Your task to perform on an android device: turn pop-ups on in chrome Image 0: 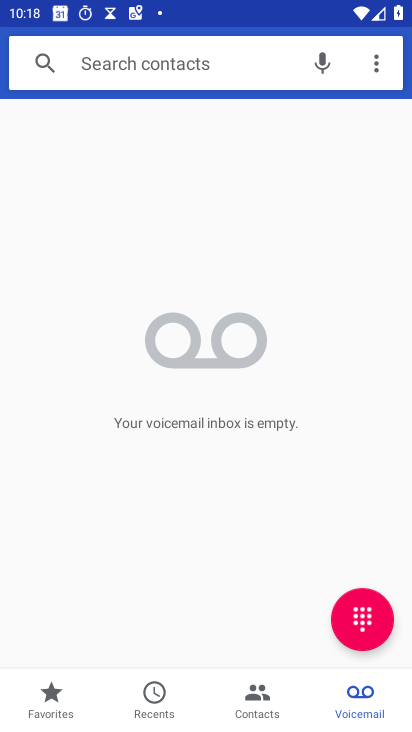
Step 0: press back button
Your task to perform on an android device: turn pop-ups on in chrome Image 1: 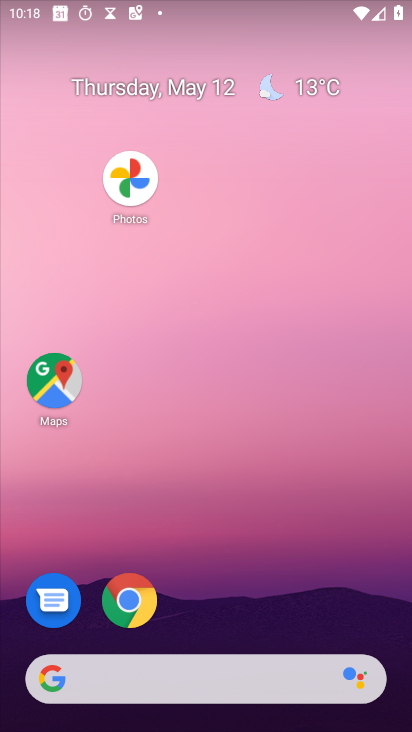
Step 1: drag from (320, 622) to (182, 43)
Your task to perform on an android device: turn pop-ups on in chrome Image 2: 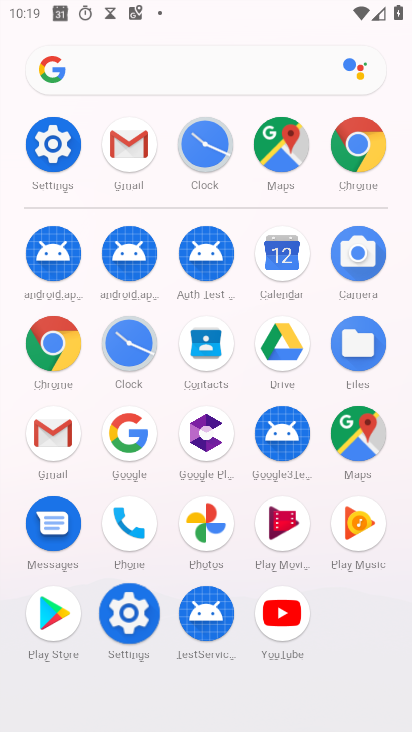
Step 2: click (362, 149)
Your task to perform on an android device: turn pop-ups on in chrome Image 3: 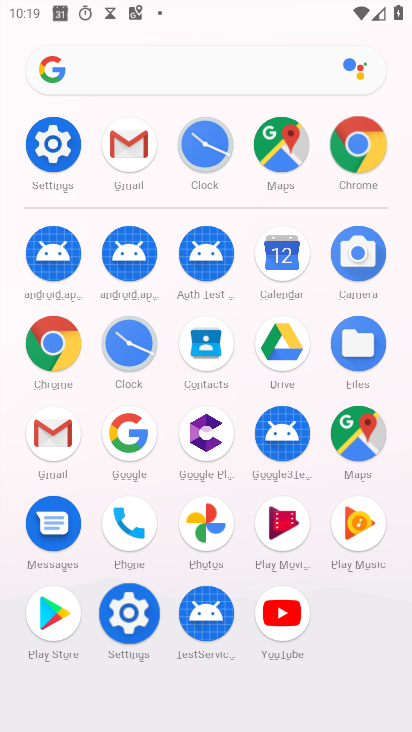
Step 3: click (362, 149)
Your task to perform on an android device: turn pop-ups on in chrome Image 4: 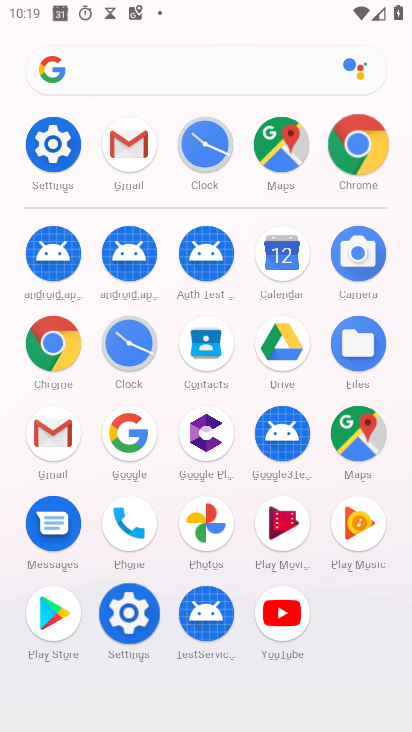
Step 4: click (356, 140)
Your task to perform on an android device: turn pop-ups on in chrome Image 5: 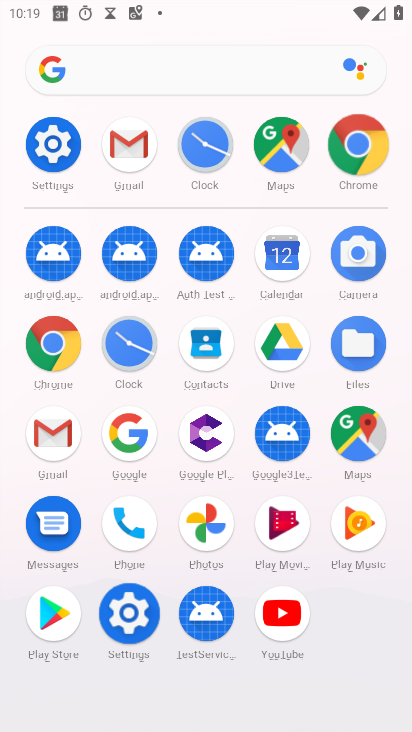
Step 5: click (356, 140)
Your task to perform on an android device: turn pop-ups on in chrome Image 6: 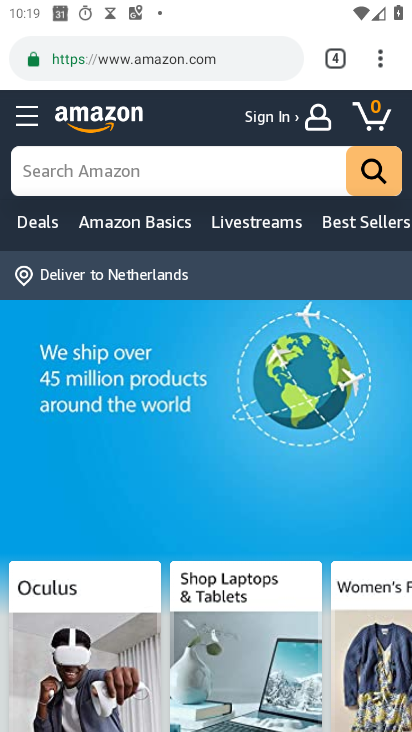
Step 6: click (380, 57)
Your task to perform on an android device: turn pop-ups on in chrome Image 7: 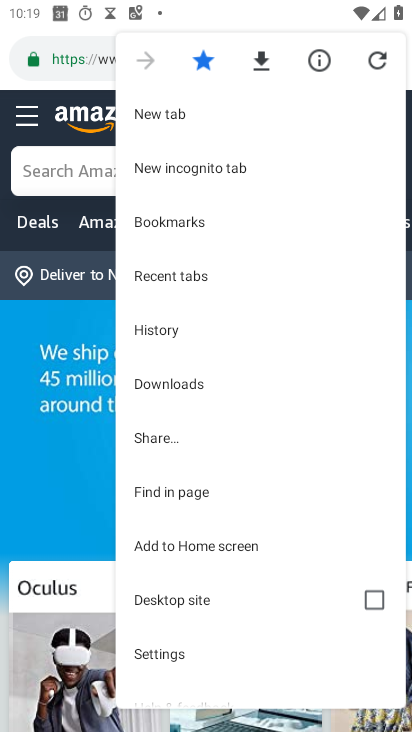
Step 7: click (166, 651)
Your task to perform on an android device: turn pop-ups on in chrome Image 8: 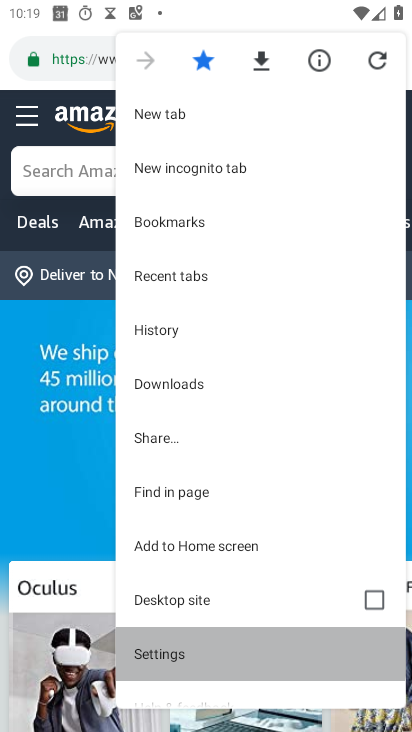
Step 8: click (161, 661)
Your task to perform on an android device: turn pop-ups on in chrome Image 9: 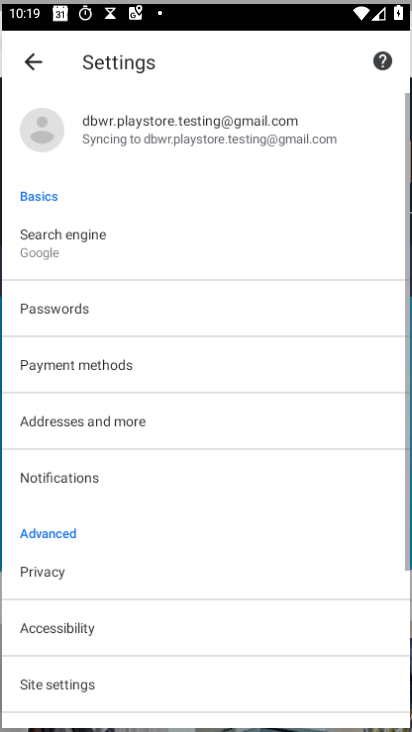
Step 9: drag from (307, 485) to (236, 80)
Your task to perform on an android device: turn pop-ups on in chrome Image 10: 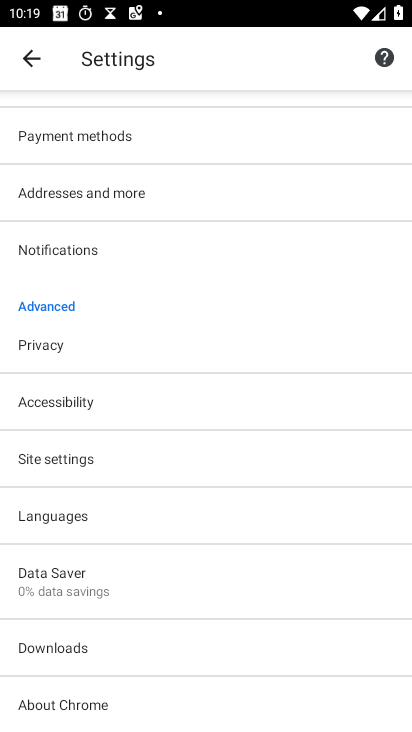
Step 10: drag from (118, 559) to (51, 84)
Your task to perform on an android device: turn pop-ups on in chrome Image 11: 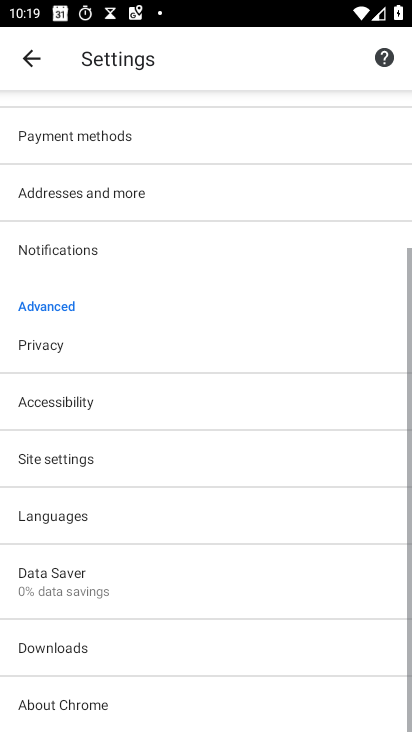
Step 11: click (55, 453)
Your task to perform on an android device: turn pop-ups on in chrome Image 12: 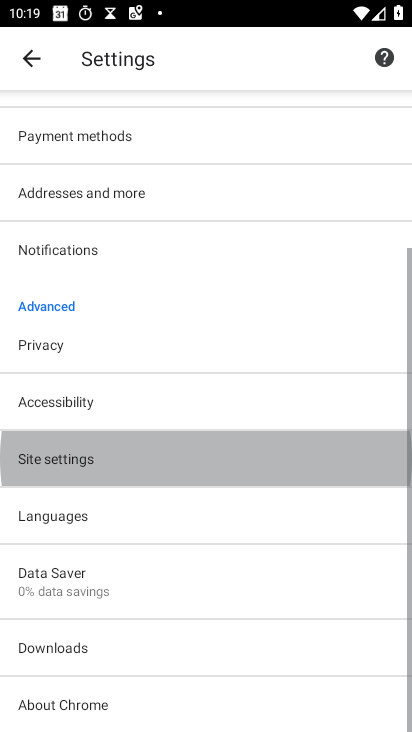
Step 12: click (56, 459)
Your task to perform on an android device: turn pop-ups on in chrome Image 13: 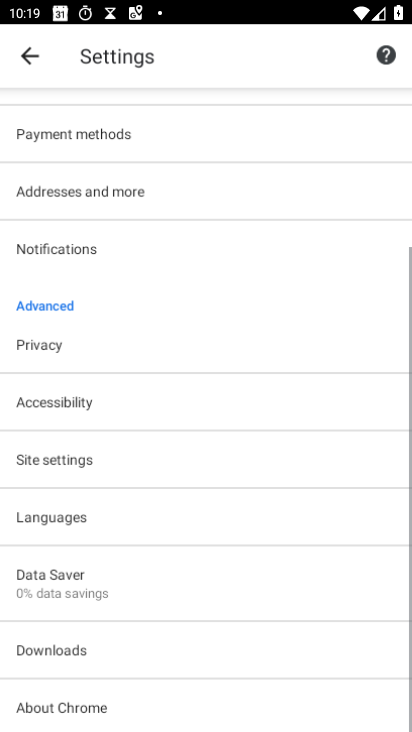
Step 13: click (56, 460)
Your task to perform on an android device: turn pop-ups on in chrome Image 14: 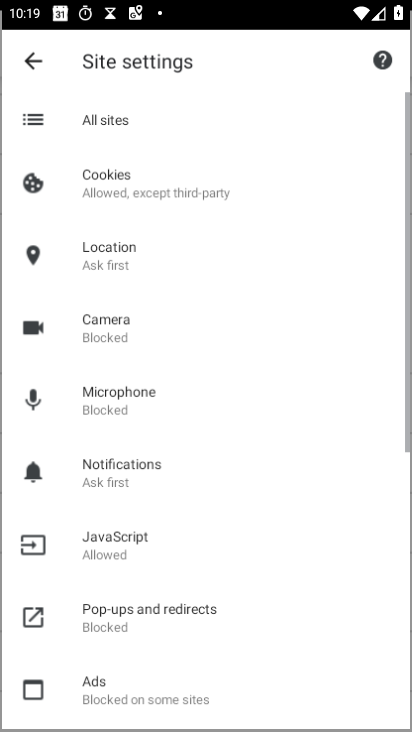
Step 14: click (55, 461)
Your task to perform on an android device: turn pop-ups on in chrome Image 15: 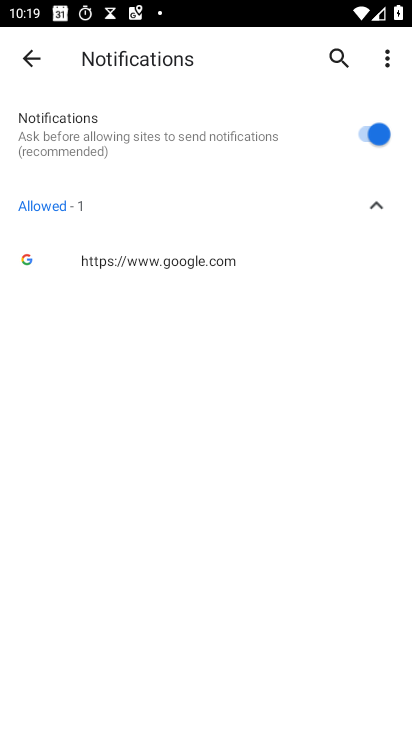
Step 15: click (29, 49)
Your task to perform on an android device: turn pop-ups on in chrome Image 16: 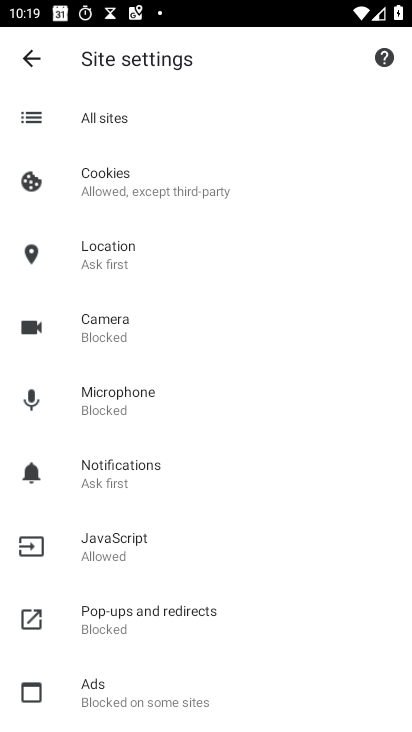
Step 16: click (121, 609)
Your task to perform on an android device: turn pop-ups on in chrome Image 17: 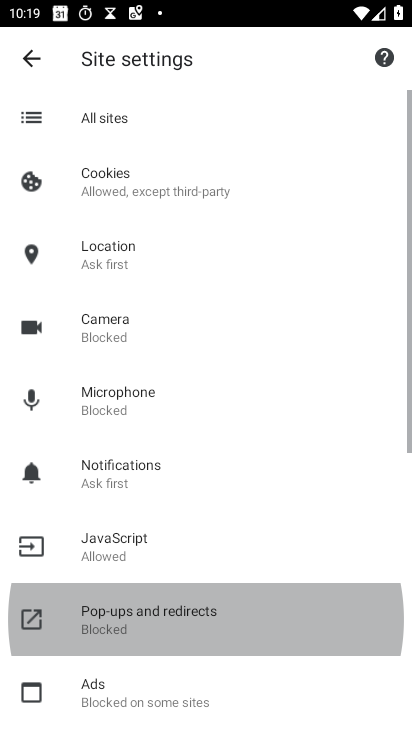
Step 17: click (118, 615)
Your task to perform on an android device: turn pop-ups on in chrome Image 18: 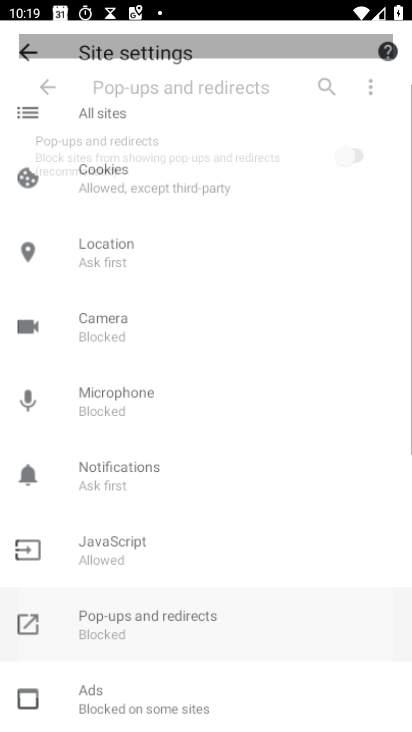
Step 18: click (121, 613)
Your task to perform on an android device: turn pop-ups on in chrome Image 19: 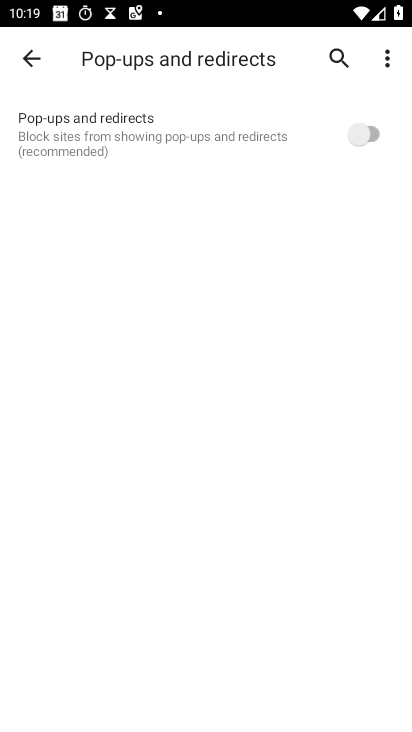
Step 19: click (125, 611)
Your task to perform on an android device: turn pop-ups on in chrome Image 20: 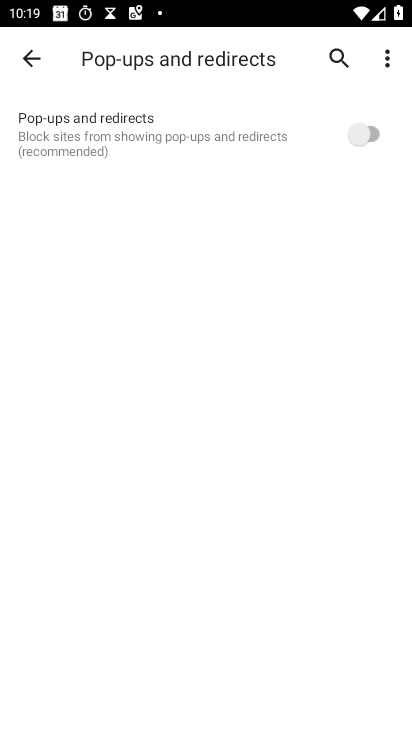
Step 20: click (354, 140)
Your task to perform on an android device: turn pop-ups on in chrome Image 21: 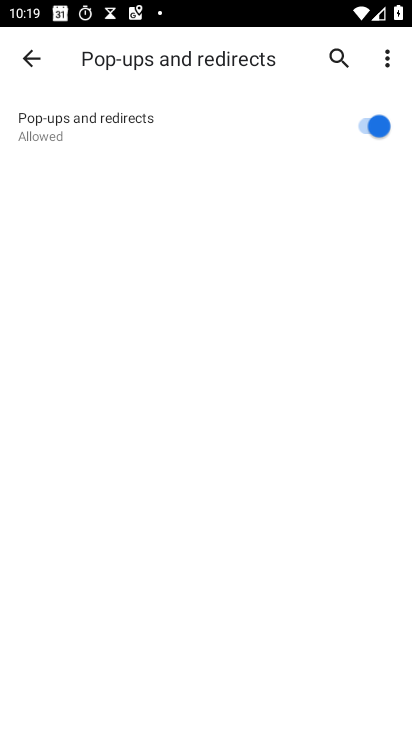
Step 21: task complete